Your task to perform on an android device: install app "Lyft - Rideshare, Bikes, Scooters & Transit" Image 0: 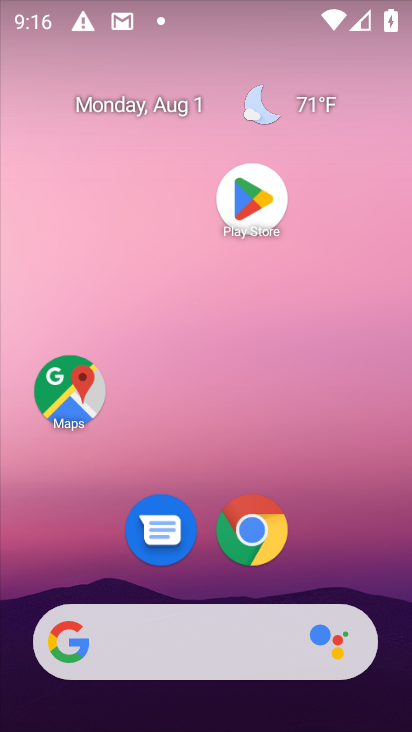
Step 0: click (222, 177)
Your task to perform on an android device: install app "Lyft - Rideshare, Bikes, Scooters & Transit" Image 1: 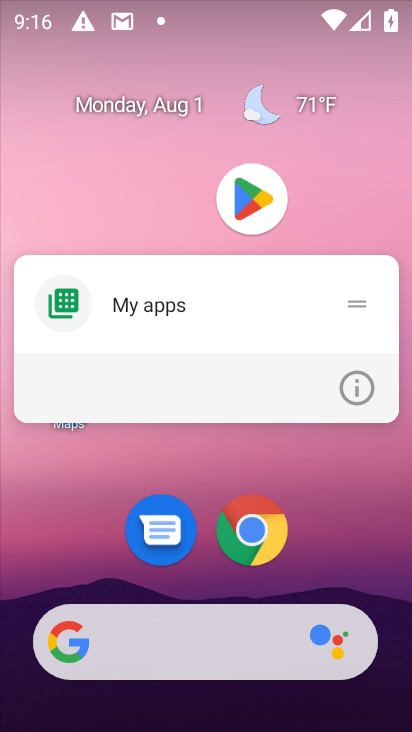
Step 1: click (272, 214)
Your task to perform on an android device: install app "Lyft - Rideshare, Bikes, Scooters & Transit" Image 2: 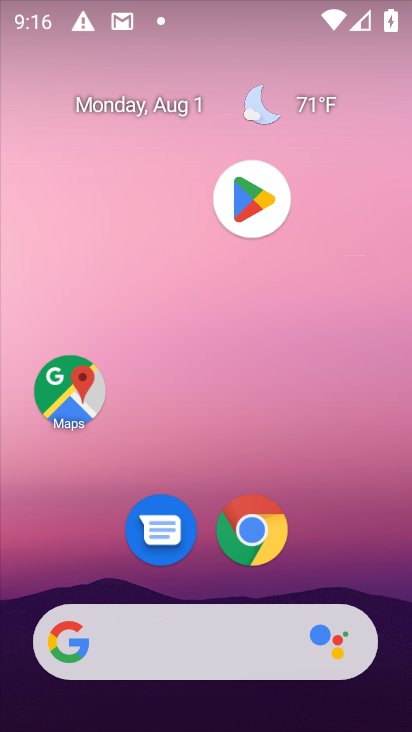
Step 2: click (190, 215)
Your task to perform on an android device: install app "Lyft - Rideshare, Bikes, Scooters & Transit" Image 3: 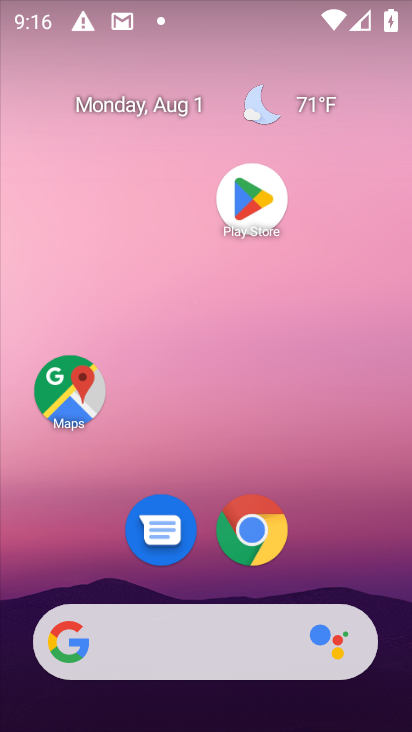
Step 3: click (262, 164)
Your task to perform on an android device: install app "Lyft - Rideshare, Bikes, Scooters & Transit" Image 4: 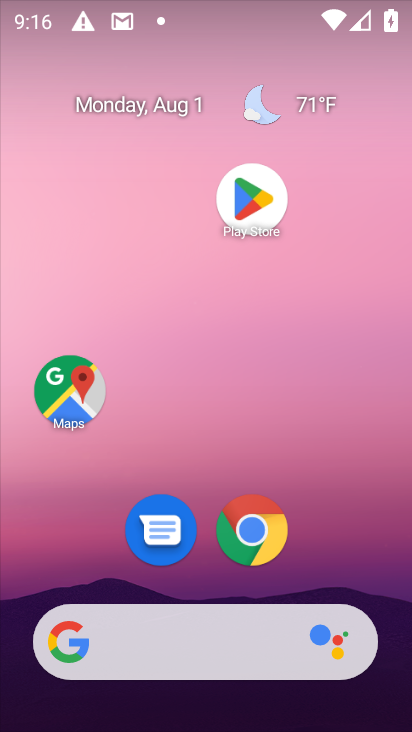
Step 4: click (243, 181)
Your task to perform on an android device: install app "Lyft - Rideshare, Bikes, Scooters & Transit" Image 5: 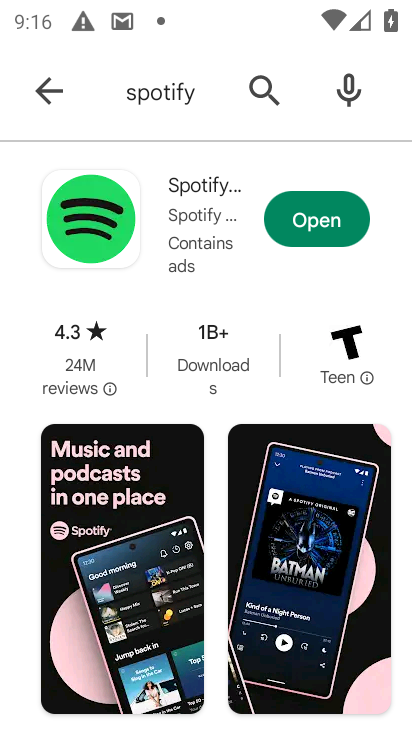
Step 5: click (234, 224)
Your task to perform on an android device: install app "Lyft - Rideshare, Bikes, Scooters & Transit" Image 6: 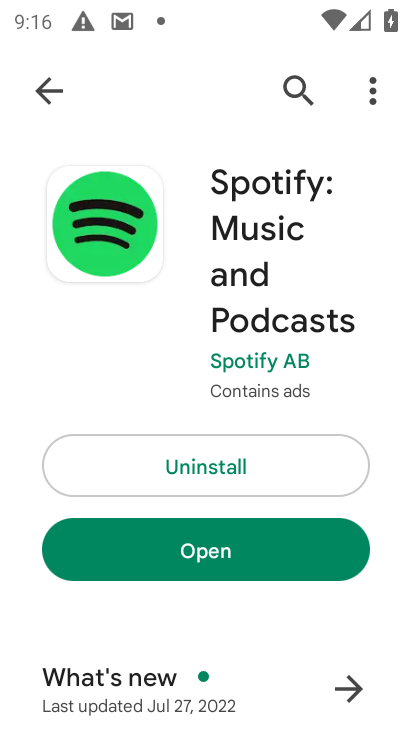
Step 6: click (322, 94)
Your task to perform on an android device: install app "Lyft - Rideshare, Bikes, Scooters & Transit" Image 7: 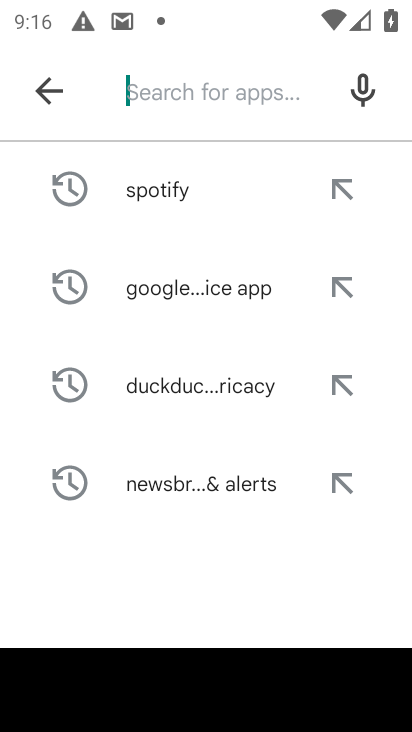
Step 7: type "Lyft - Rideshare, Bikes, Scooters & Transit""
Your task to perform on an android device: install app "Lyft - Rideshare, Bikes, Scooters & Transit" Image 8: 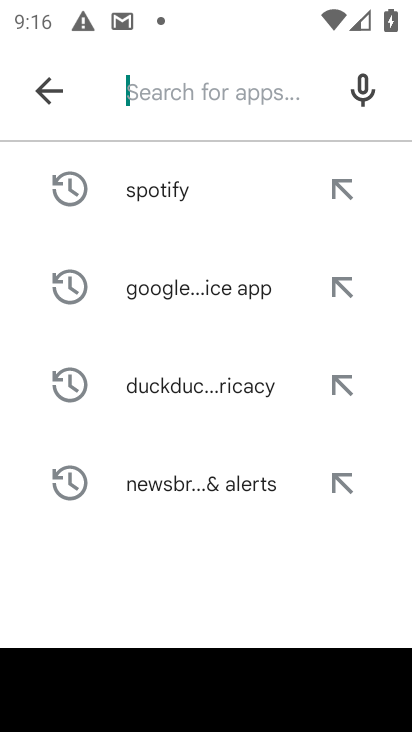
Step 8: type ""
Your task to perform on an android device: install app "Lyft - Rideshare, Bikes, Scooters & Transit" Image 9: 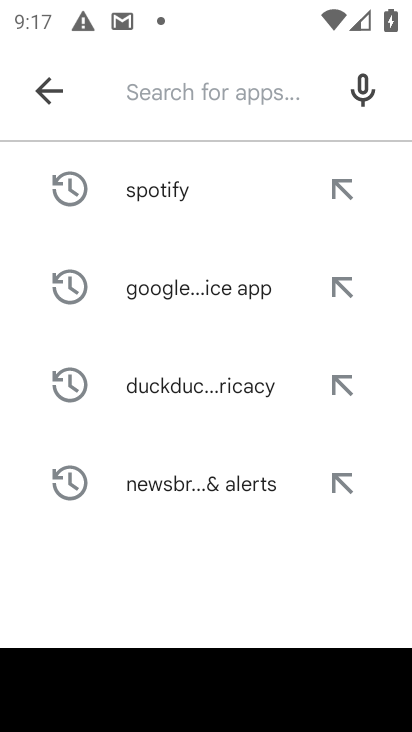
Step 9: type "Lyft - Rideshare, Bikes, Scooters & Transit"
Your task to perform on an android device: install app "Lyft - Rideshare, Bikes, Scooters & Transit" Image 10: 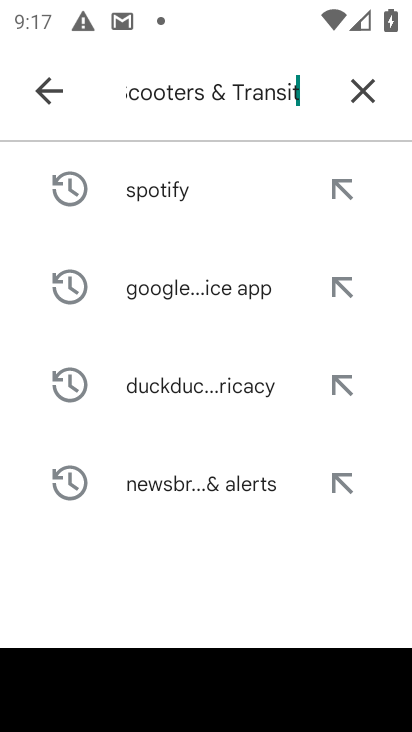
Step 10: type ""
Your task to perform on an android device: install app "Lyft - Rideshare, Bikes, Scooters & Transit" Image 11: 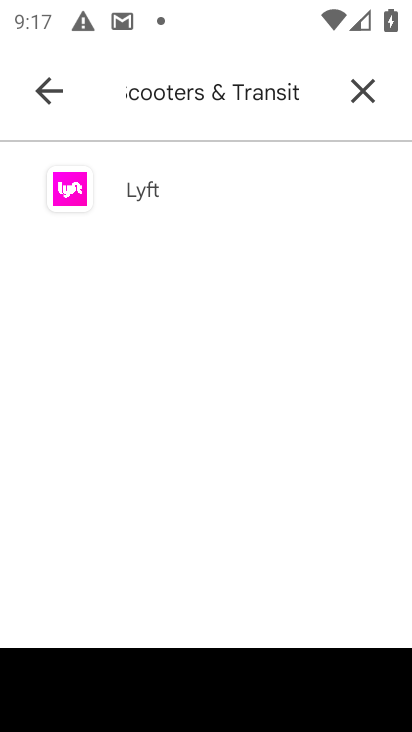
Step 11: click (166, 193)
Your task to perform on an android device: install app "Lyft - Rideshare, Bikes, Scooters & Transit" Image 12: 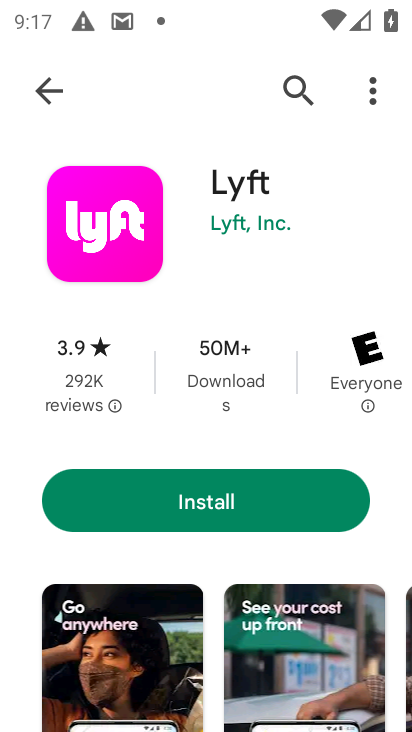
Step 12: click (267, 501)
Your task to perform on an android device: install app "Lyft - Rideshare, Bikes, Scooters & Transit" Image 13: 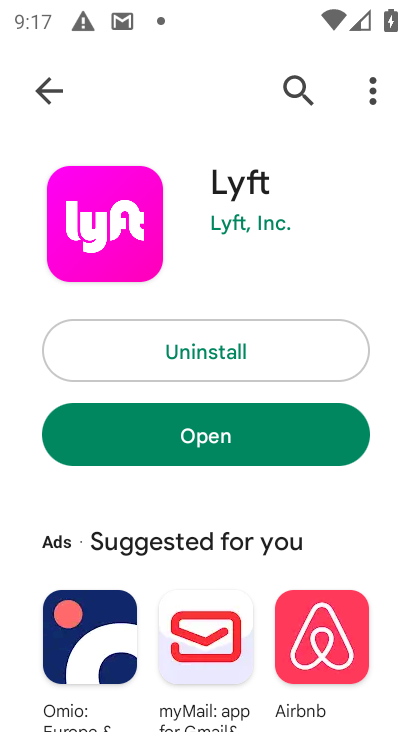
Step 13: task complete